Your task to perform on an android device: Search for seafood restaurants on Google Maps Image 0: 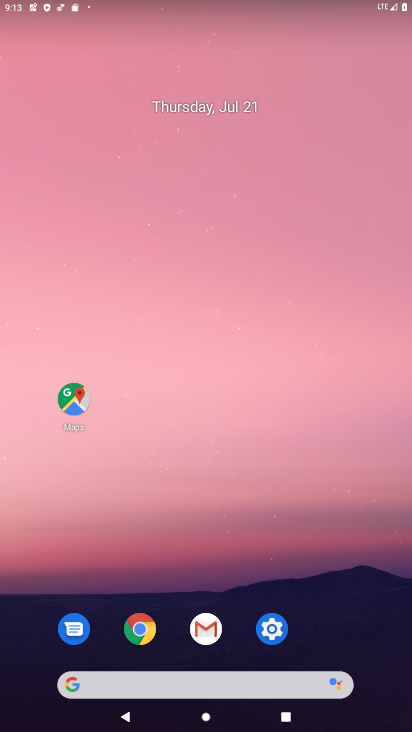
Step 0: click (71, 400)
Your task to perform on an android device: Search for seafood restaurants on Google Maps Image 1: 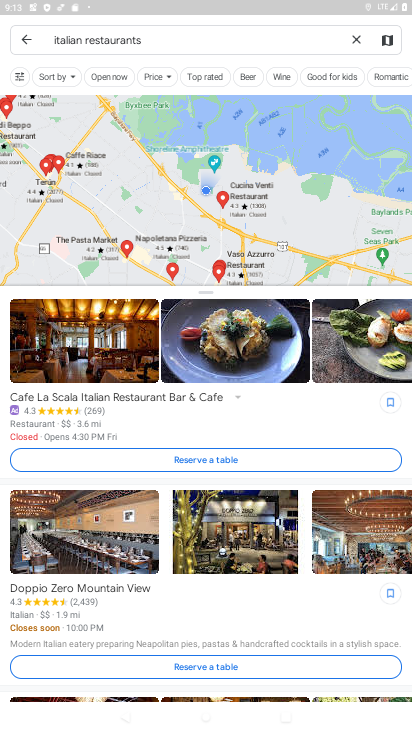
Step 1: click (352, 44)
Your task to perform on an android device: Search for seafood restaurants on Google Maps Image 2: 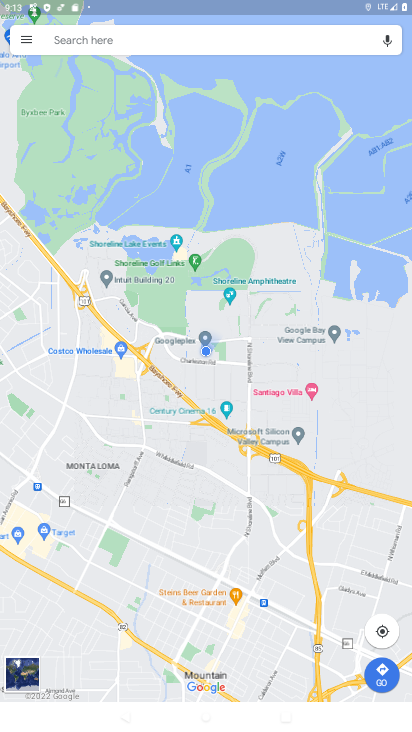
Step 2: click (153, 43)
Your task to perform on an android device: Search for seafood restaurants on Google Maps Image 3: 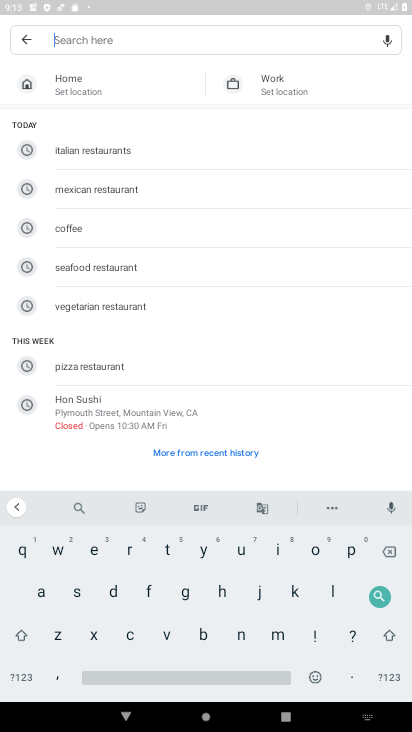
Step 3: click (90, 271)
Your task to perform on an android device: Search for seafood restaurants on Google Maps Image 4: 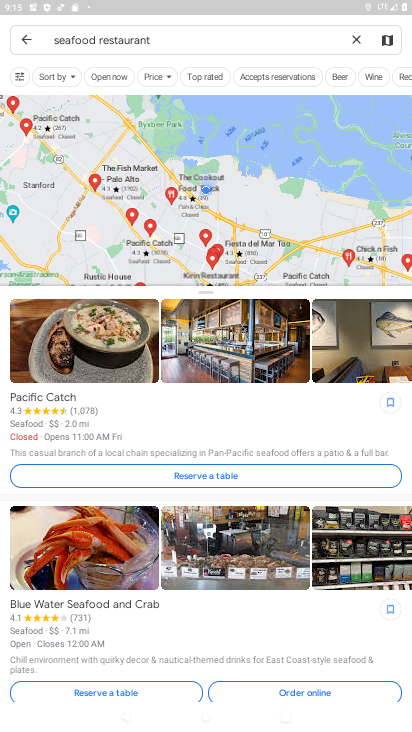
Step 4: task complete